Your task to perform on an android device: move an email to a new category in the gmail app Image 0: 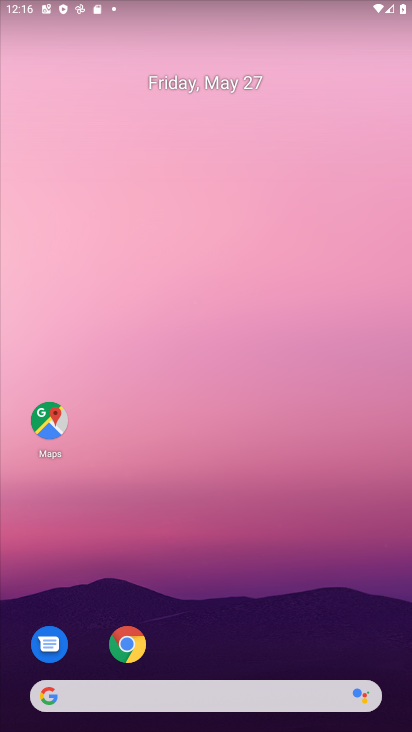
Step 0: drag from (344, 611) to (314, 49)
Your task to perform on an android device: move an email to a new category in the gmail app Image 1: 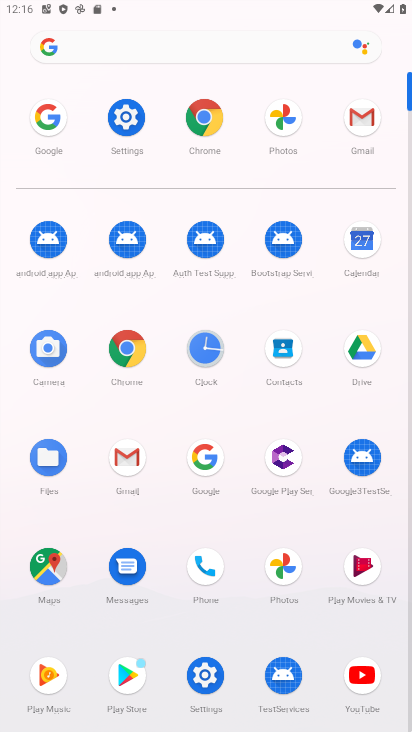
Step 1: click (366, 114)
Your task to perform on an android device: move an email to a new category in the gmail app Image 2: 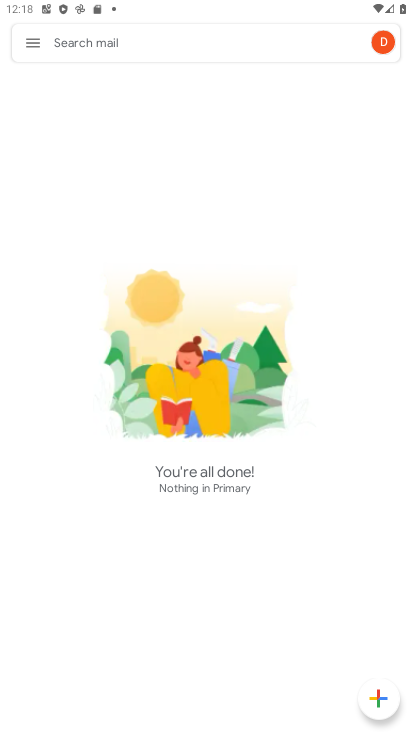
Step 2: task complete